Your task to perform on an android device: Go to eBay Image 0: 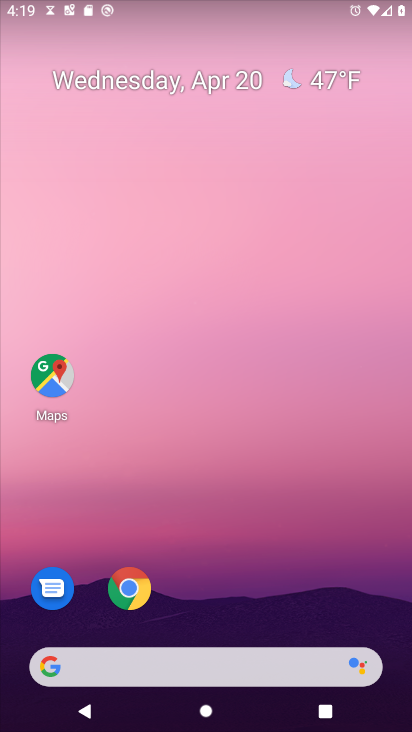
Step 0: click (144, 590)
Your task to perform on an android device: Go to eBay Image 1: 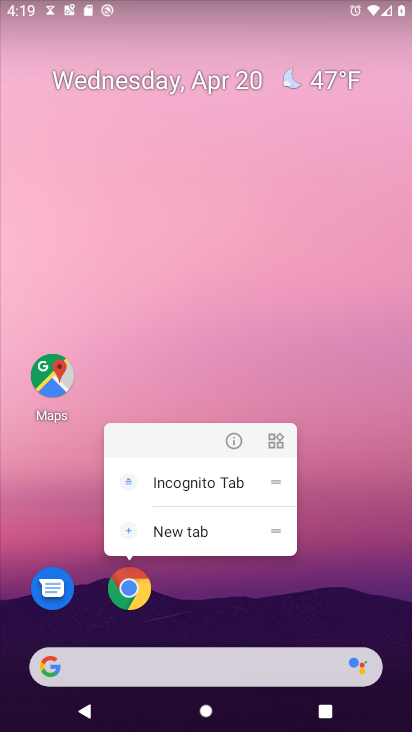
Step 1: click (155, 575)
Your task to perform on an android device: Go to eBay Image 2: 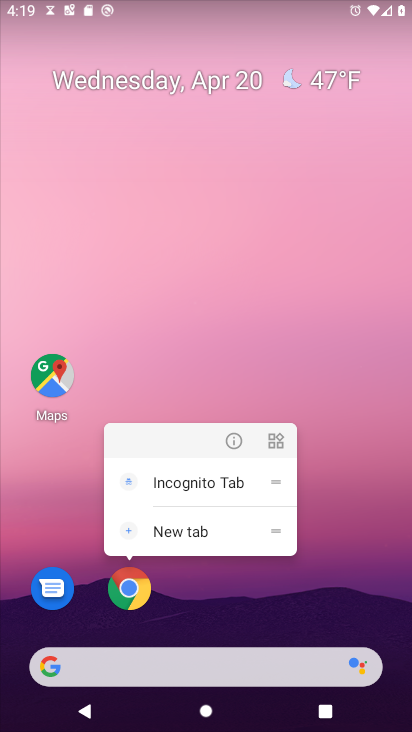
Step 2: click (144, 598)
Your task to perform on an android device: Go to eBay Image 3: 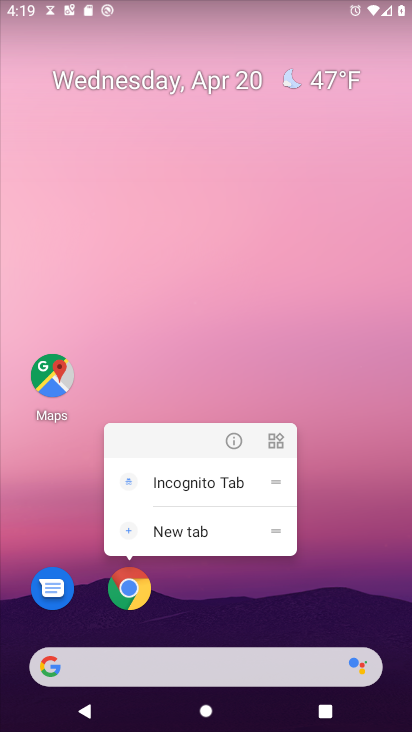
Step 3: click (132, 606)
Your task to perform on an android device: Go to eBay Image 4: 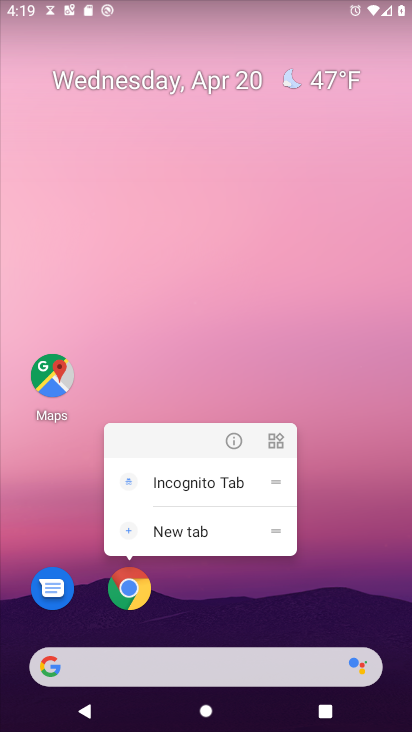
Step 4: click (122, 594)
Your task to perform on an android device: Go to eBay Image 5: 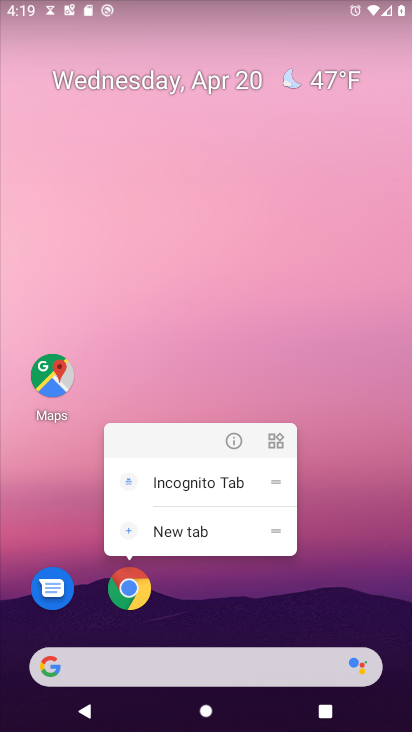
Step 5: click (126, 588)
Your task to perform on an android device: Go to eBay Image 6: 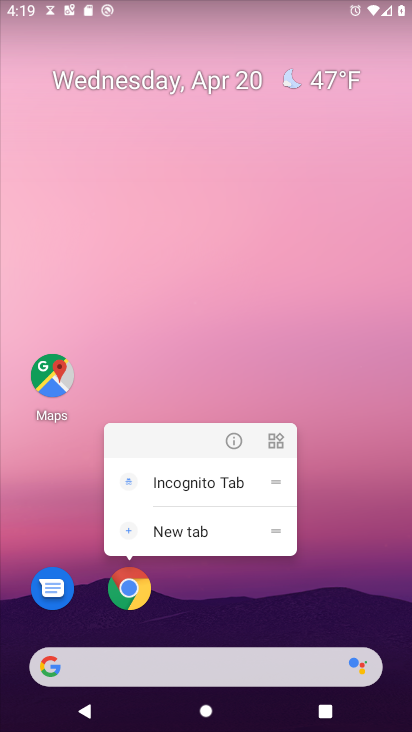
Step 6: click (126, 588)
Your task to perform on an android device: Go to eBay Image 7: 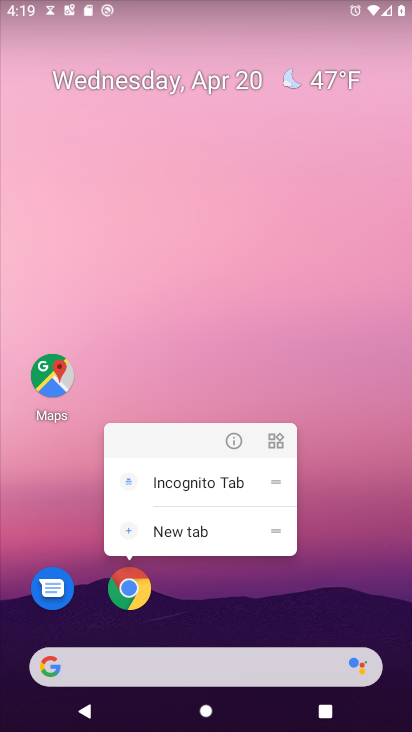
Step 7: click (109, 581)
Your task to perform on an android device: Go to eBay Image 8: 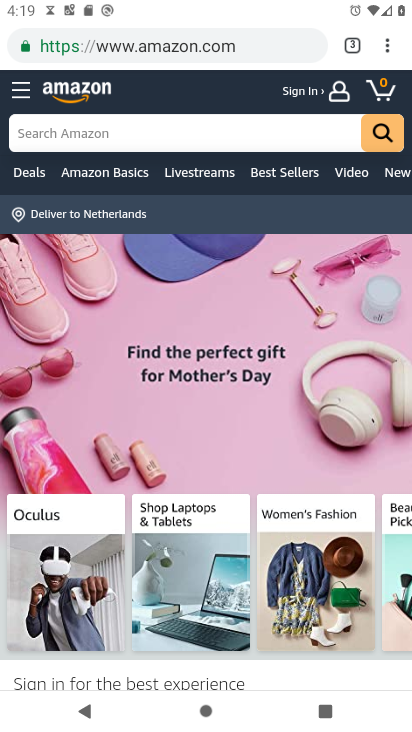
Step 8: click (390, 43)
Your task to perform on an android device: Go to eBay Image 9: 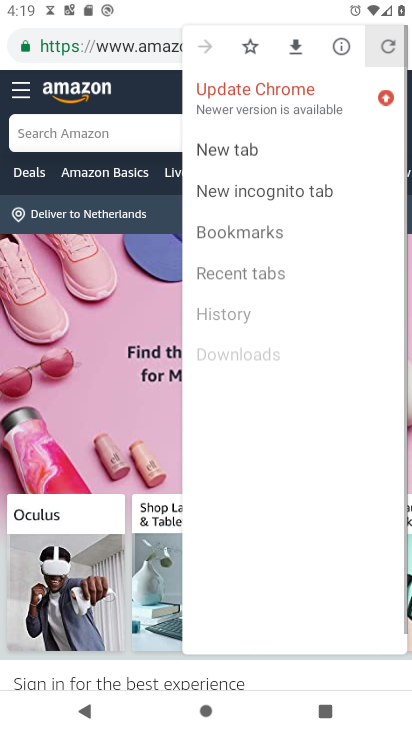
Step 9: click (172, 47)
Your task to perform on an android device: Go to eBay Image 10: 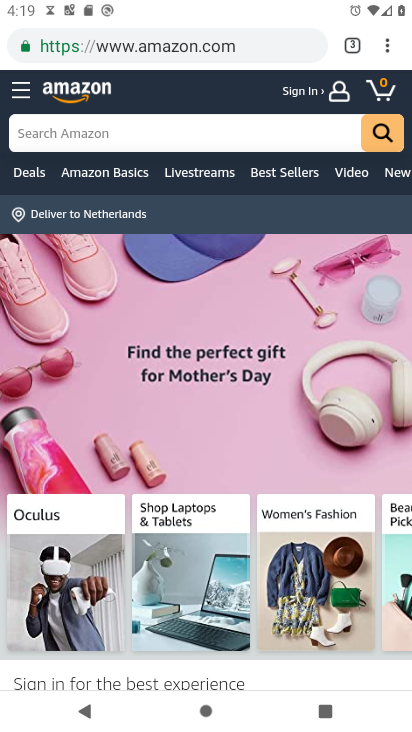
Step 10: click (172, 46)
Your task to perform on an android device: Go to eBay Image 11: 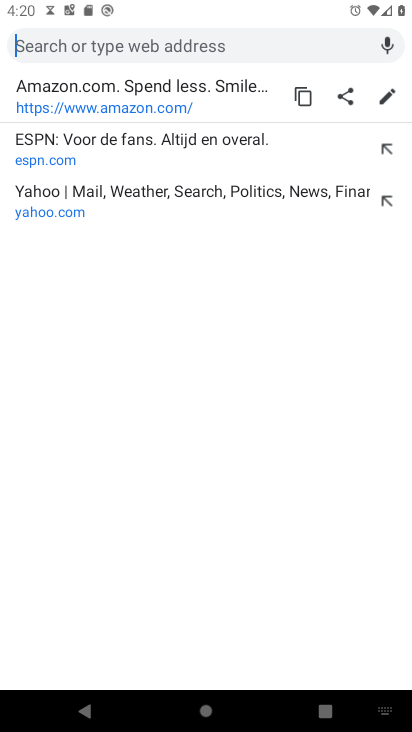
Step 11: type "ebay"
Your task to perform on an android device: Go to eBay Image 12: 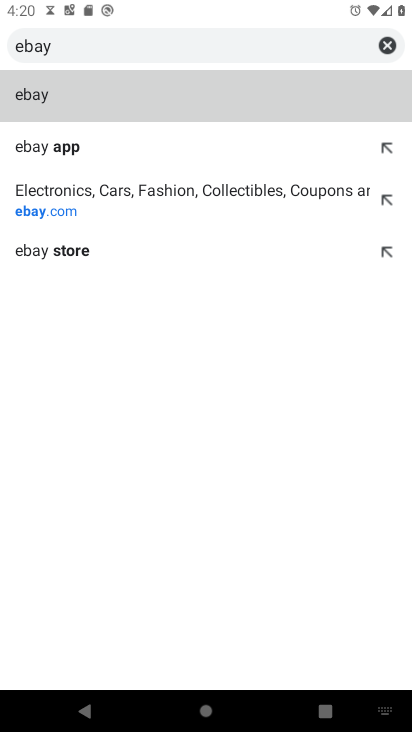
Step 12: click (32, 99)
Your task to perform on an android device: Go to eBay Image 13: 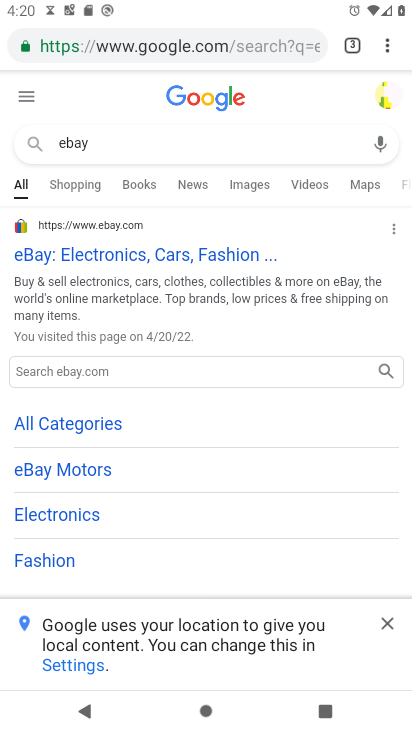
Step 13: click (74, 245)
Your task to perform on an android device: Go to eBay Image 14: 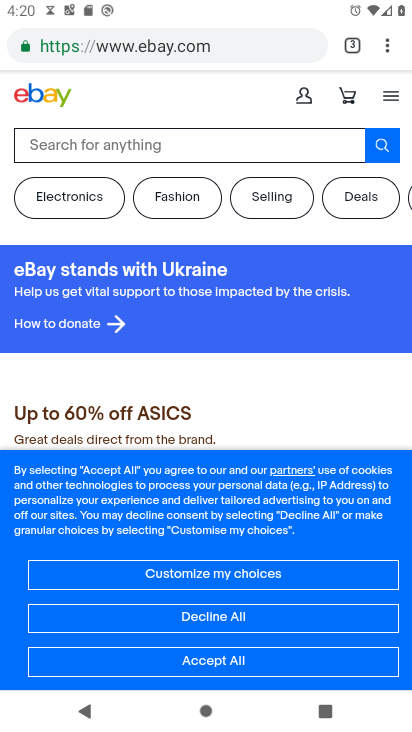
Step 14: task complete